Your task to perform on an android device: Open Chrome and go to settings Image 0: 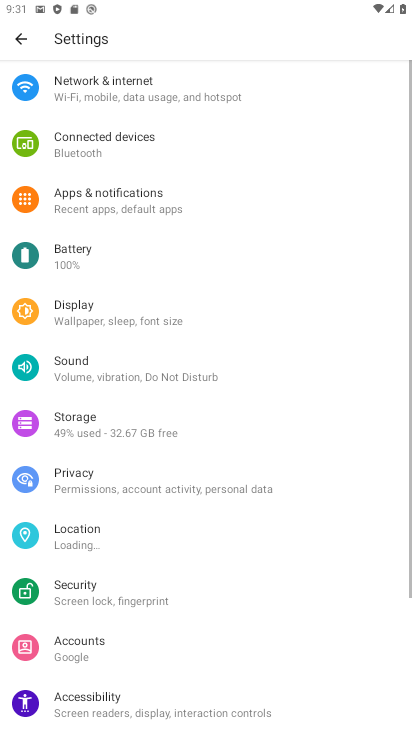
Step 0: press home button
Your task to perform on an android device: Open Chrome and go to settings Image 1: 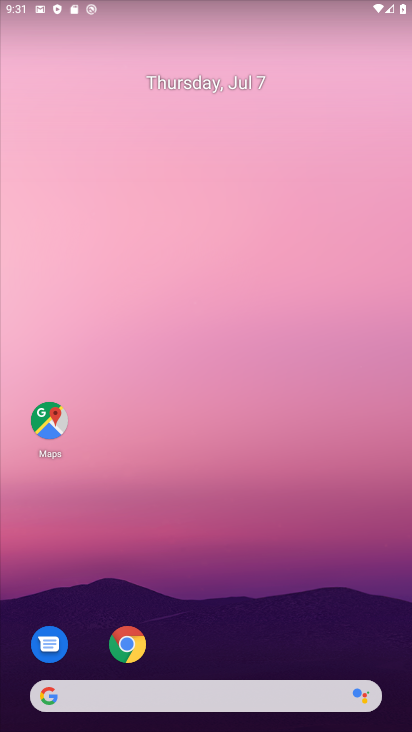
Step 1: click (121, 654)
Your task to perform on an android device: Open Chrome and go to settings Image 2: 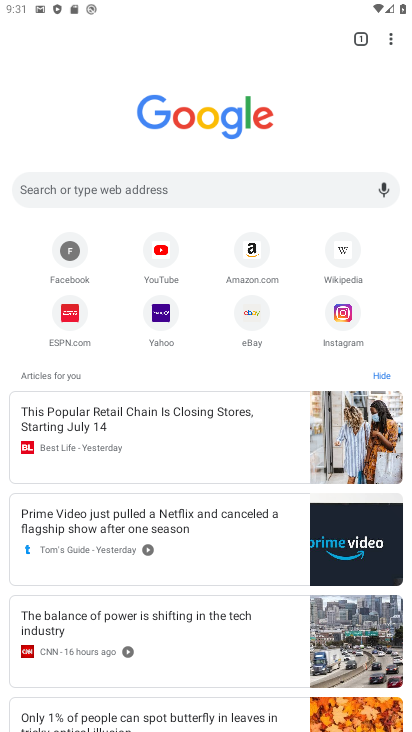
Step 2: click (392, 42)
Your task to perform on an android device: Open Chrome and go to settings Image 3: 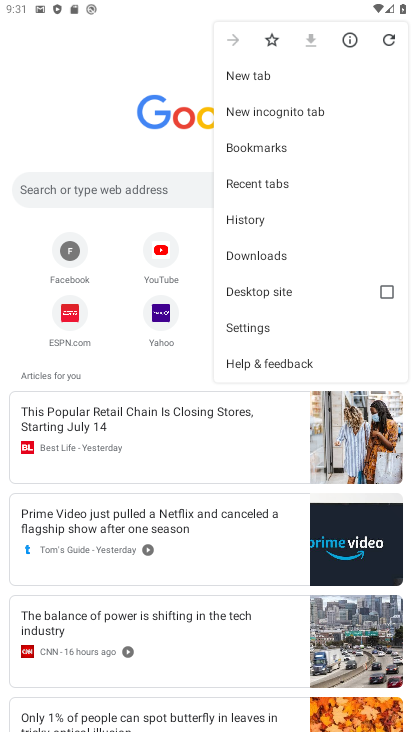
Step 3: click (261, 338)
Your task to perform on an android device: Open Chrome and go to settings Image 4: 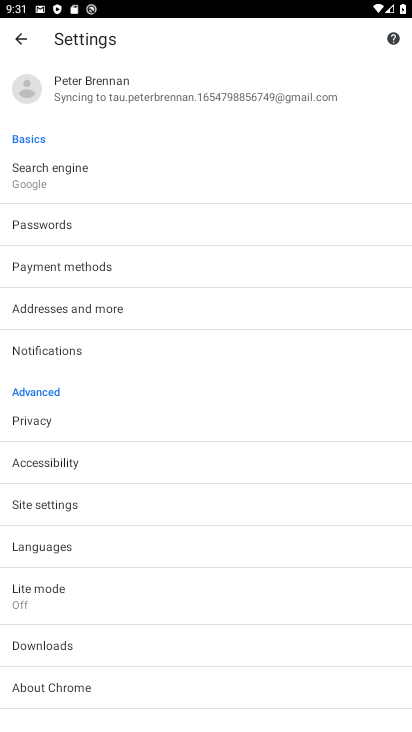
Step 4: task complete